Your task to perform on an android device: Search for Italian restaurants on Maps Image 0: 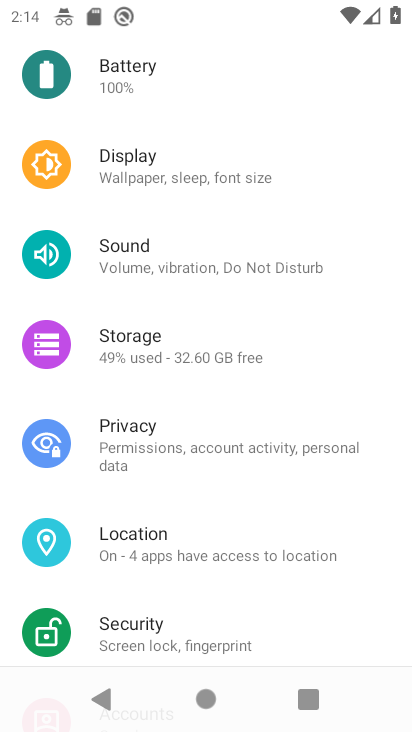
Step 0: press home button
Your task to perform on an android device: Search for Italian restaurants on Maps Image 1: 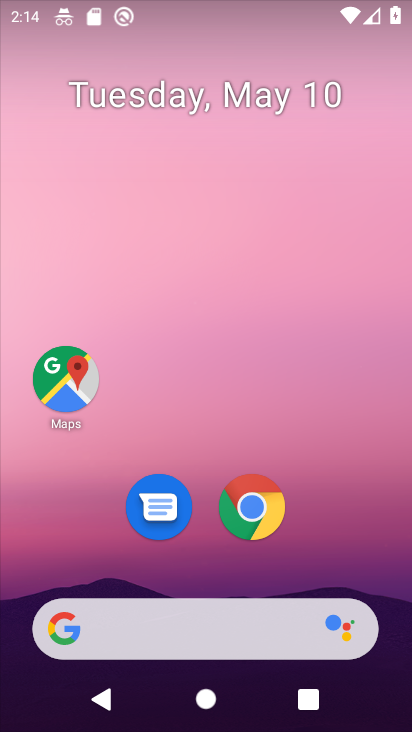
Step 1: click (58, 378)
Your task to perform on an android device: Search for Italian restaurants on Maps Image 2: 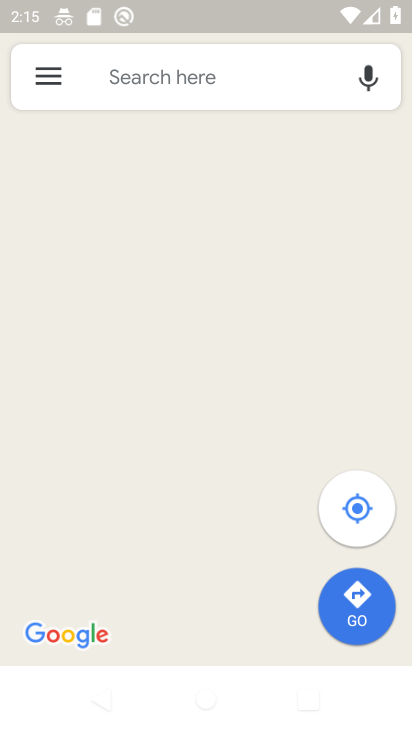
Step 2: click (155, 84)
Your task to perform on an android device: Search for Italian restaurants on Maps Image 3: 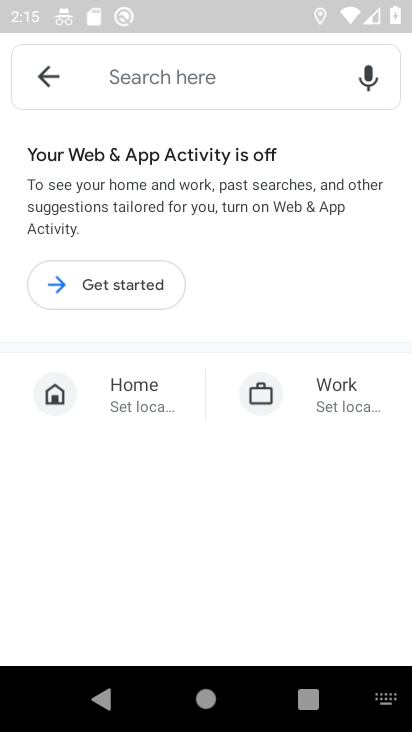
Step 3: type "italian restaurants"
Your task to perform on an android device: Search for Italian restaurants on Maps Image 4: 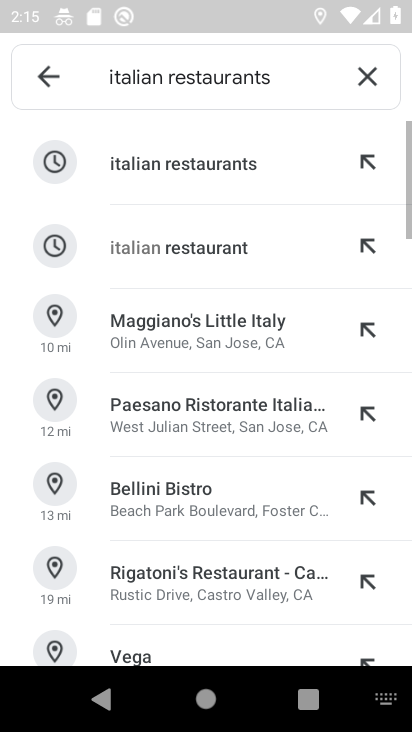
Step 4: click (184, 165)
Your task to perform on an android device: Search for Italian restaurants on Maps Image 5: 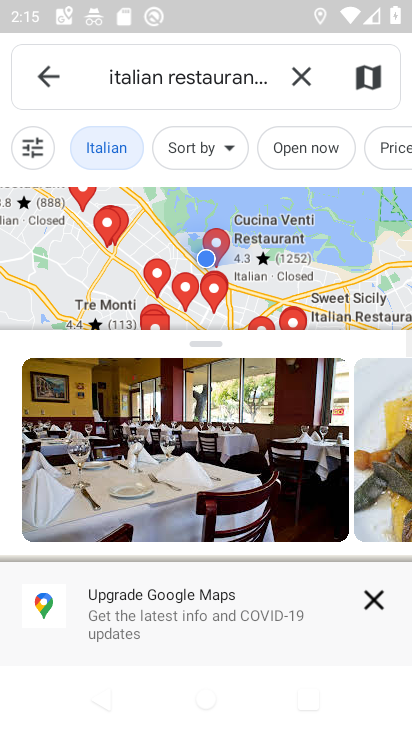
Step 5: task complete